Your task to perform on an android device: Search for seafood restaurants on Google Maps Image 0: 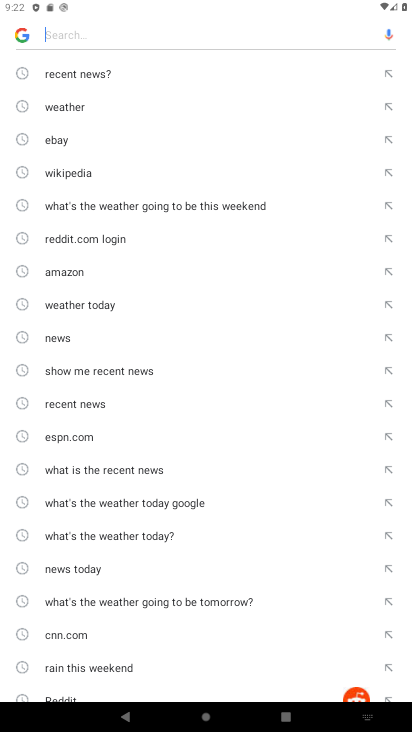
Step 0: press back button
Your task to perform on an android device: Search for seafood restaurants on Google Maps Image 1: 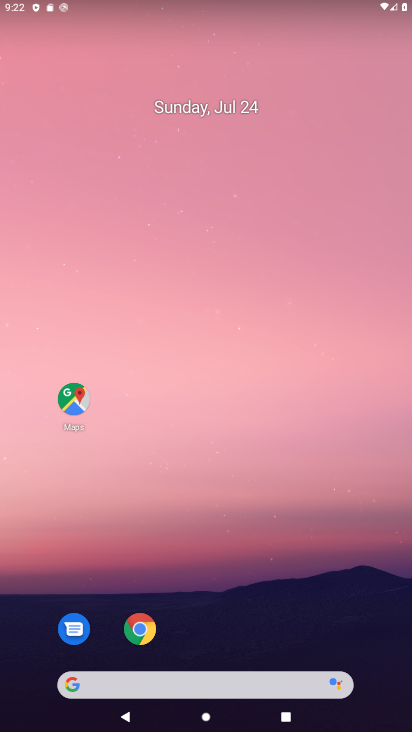
Step 1: click (62, 388)
Your task to perform on an android device: Search for seafood restaurants on Google Maps Image 2: 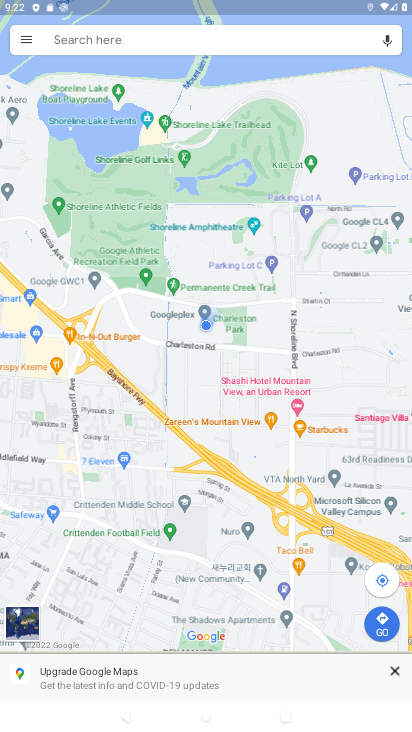
Step 2: click (172, 39)
Your task to perform on an android device: Search for seafood restaurants on Google Maps Image 3: 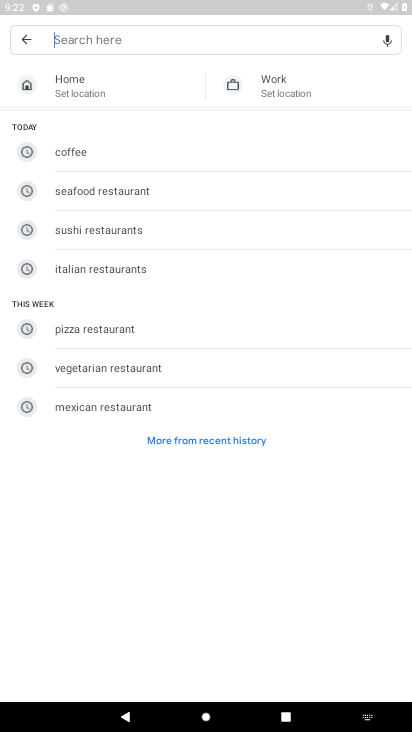
Step 3: click (133, 187)
Your task to perform on an android device: Search for seafood restaurants on Google Maps Image 4: 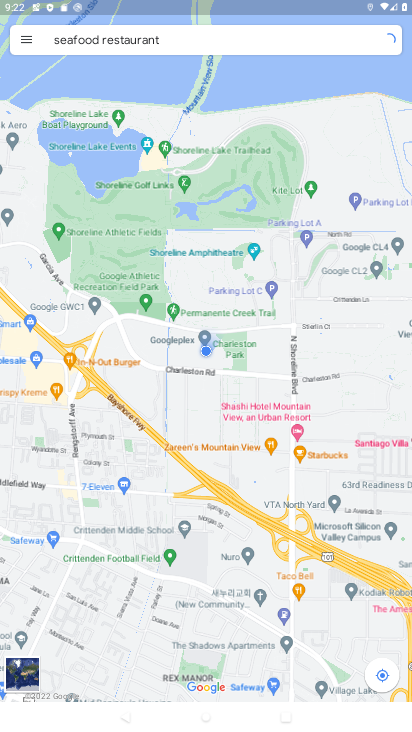
Step 4: task complete